Your task to perform on an android device: find snoozed emails in the gmail app Image 0: 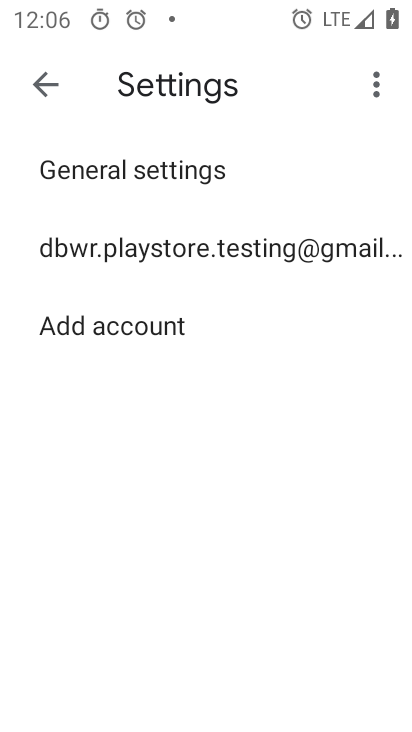
Step 0: click (44, 80)
Your task to perform on an android device: find snoozed emails in the gmail app Image 1: 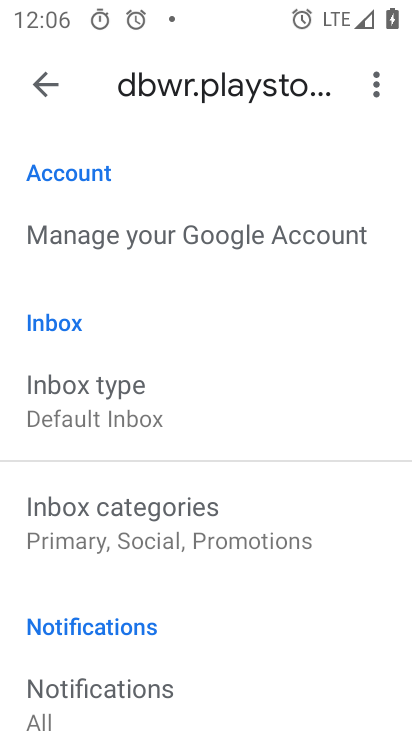
Step 1: click (57, 86)
Your task to perform on an android device: find snoozed emails in the gmail app Image 2: 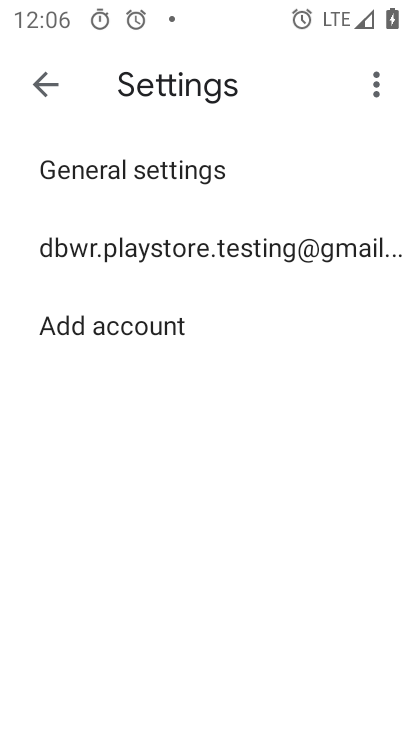
Step 2: click (55, 114)
Your task to perform on an android device: find snoozed emails in the gmail app Image 3: 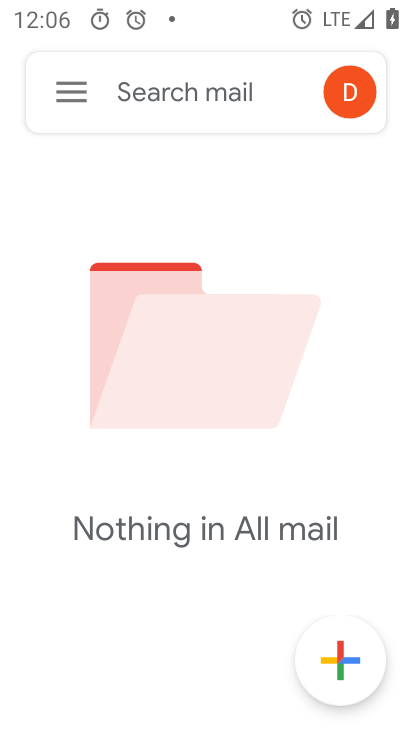
Step 3: click (69, 102)
Your task to perform on an android device: find snoozed emails in the gmail app Image 4: 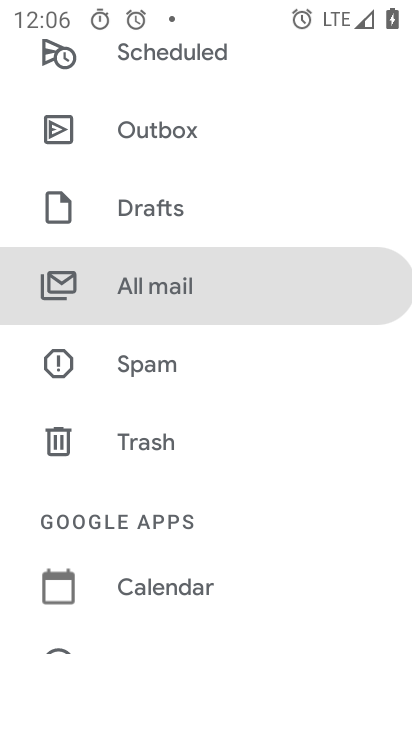
Step 4: drag from (128, 136) to (134, 697)
Your task to perform on an android device: find snoozed emails in the gmail app Image 5: 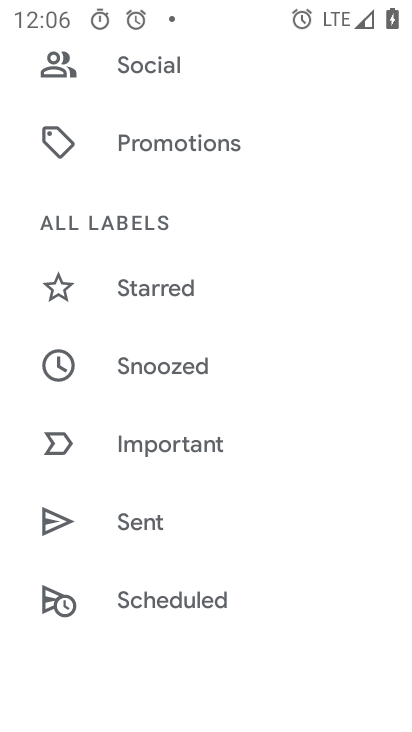
Step 5: click (180, 365)
Your task to perform on an android device: find snoozed emails in the gmail app Image 6: 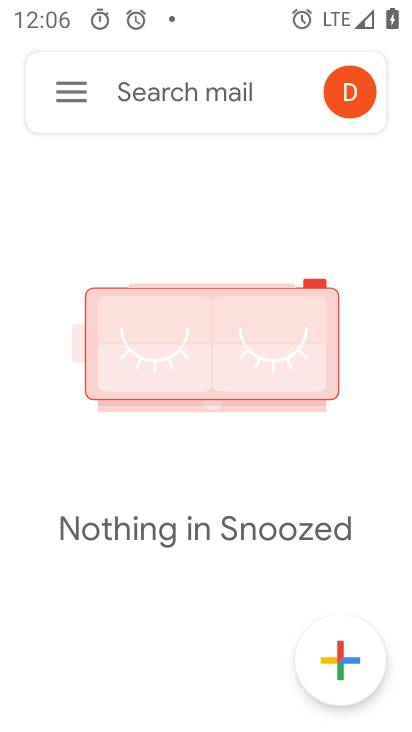
Step 6: task complete